Your task to perform on an android device: turn off picture-in-picture Image 0: 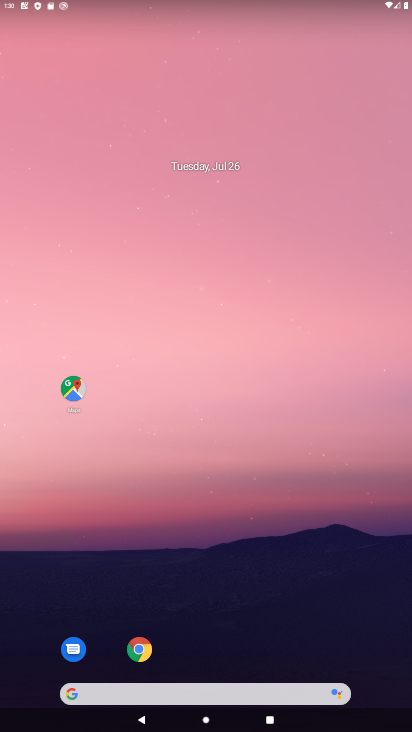
Step 0: click (138, 647)
Your task to perform on an android device: turn off picture-in-picture Image 1: 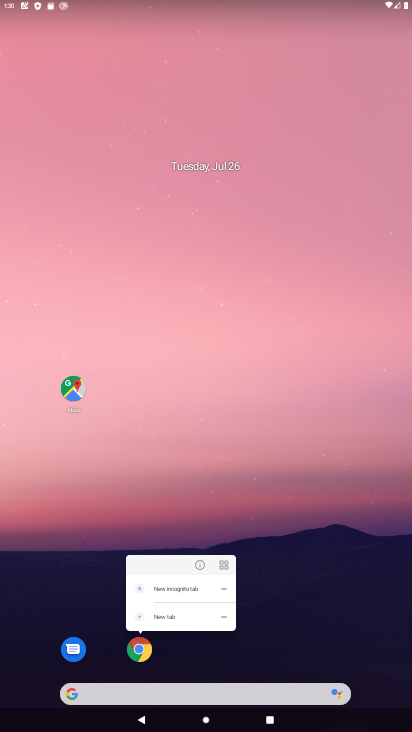
Step 1: click (199, 565)
Your task to perform on an android device: turn off picture-in-picture Image 2: 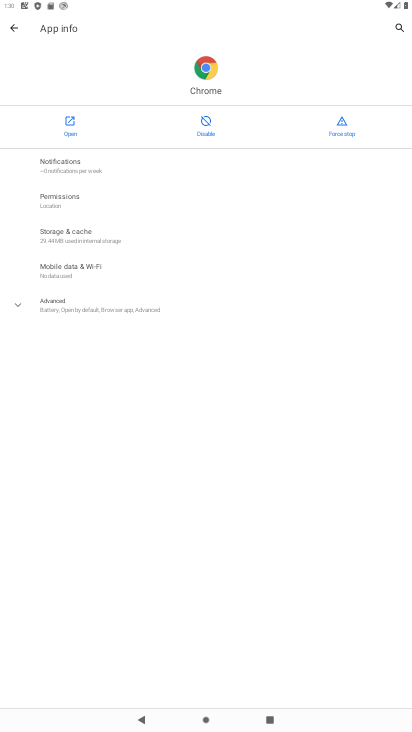
Step 2: click (20, 303)
Your task to perform on an android device: turn off picture-in-picture Image 3: 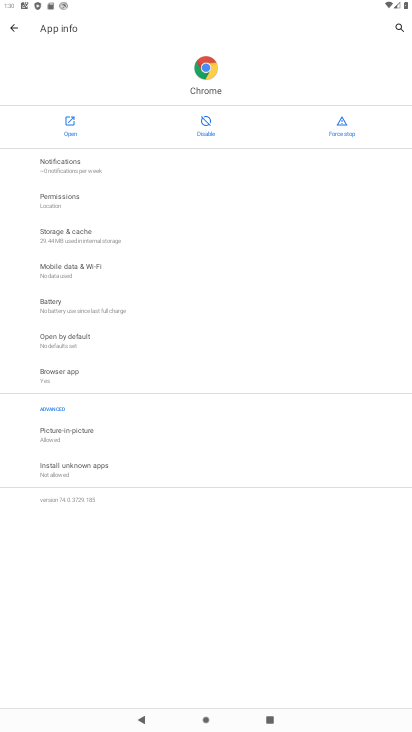
Step 3: click (99, 434)
Your task to perform on an android device: turn off picture-in-picture Image 4: 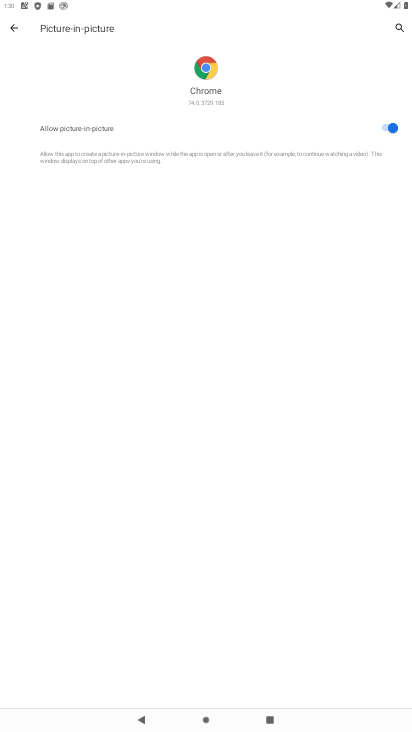
Step 4: click (388, 126)
Your task to perform on an android device: turn off picture-in-picture Image 5: 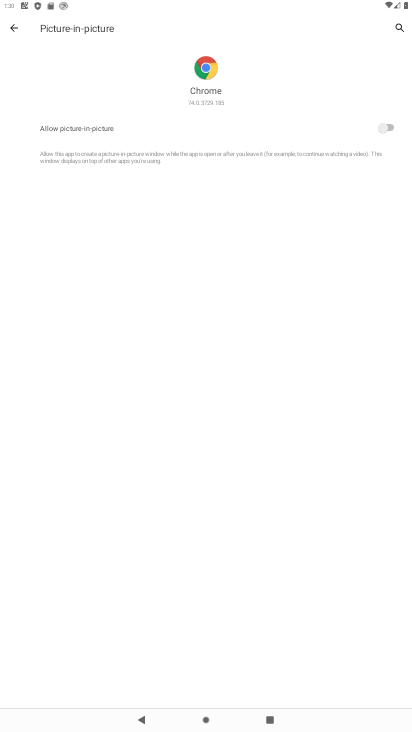
Step 5: task complete